Your task to perform on an android device: Is it going to rain this weekend? Image 0: 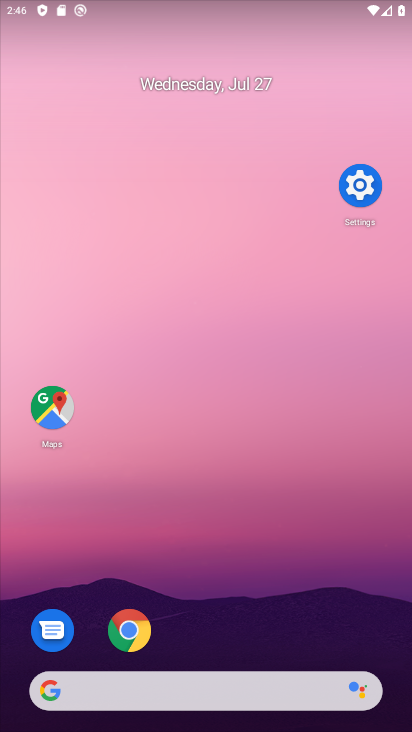
Step 0: press home button
Your task to perform on an android device: Is it going to rain this weekend? Image 1: 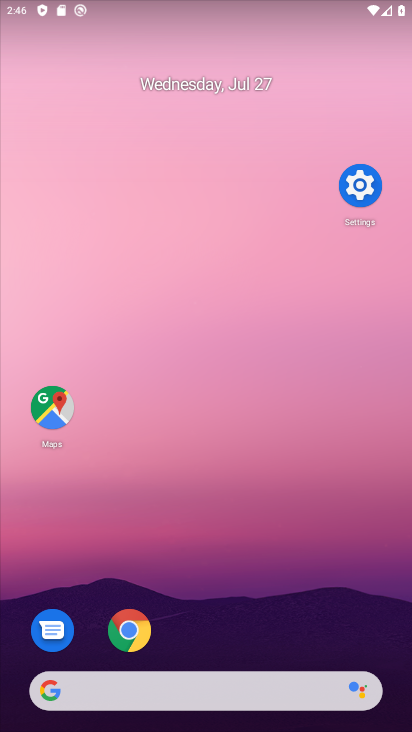
Step 1: click (41, 686)
Your task to perform on an android device: Is it going to rain this weekend? Image 2: 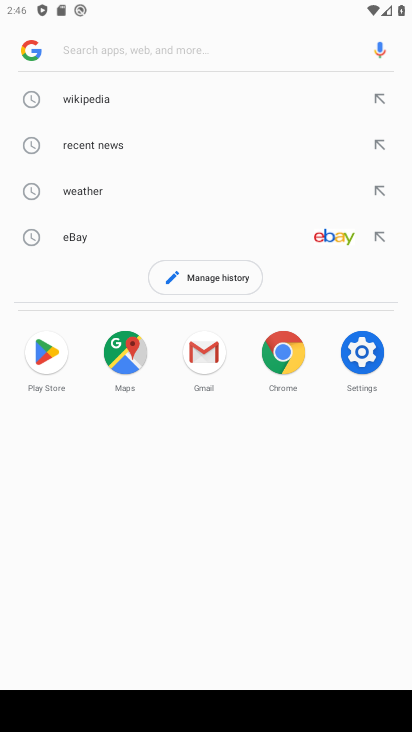
Step 2: type "rain this weekend?"
Your task to perform on an android device: Is it going to rain this weekend? Image 3: 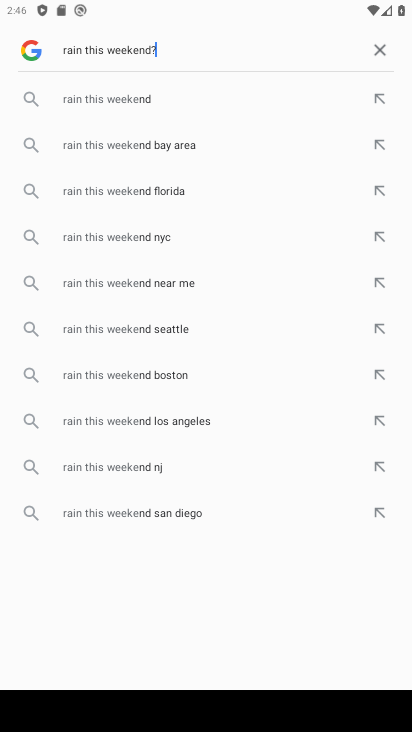
Step 3: press enter
Your task to perform on an android device: Is it going to rain this weekend? Image 4: 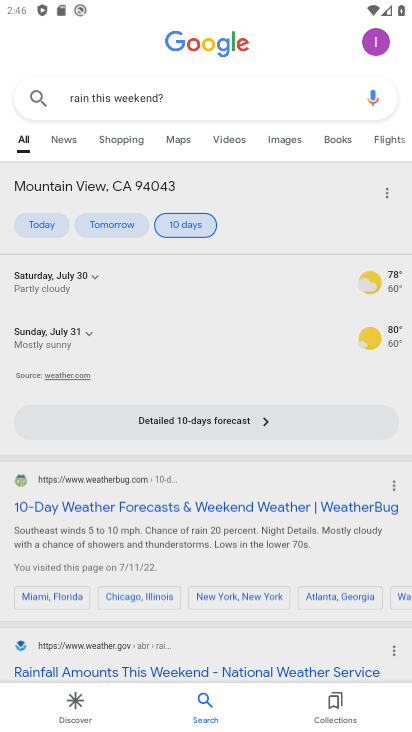
Step 4: task complete